Your task to perform on an android device: turn off javascript in the chrome app Image 0: 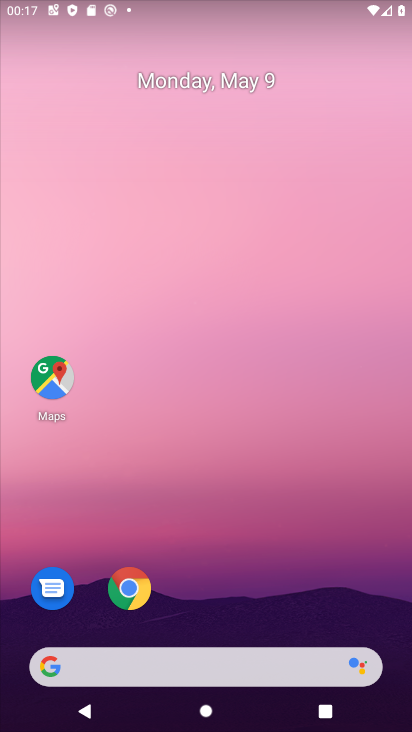
Step 0: click (127, 588)
Your task to perform on an android device: turn off javascript in the chrome app Image 1: 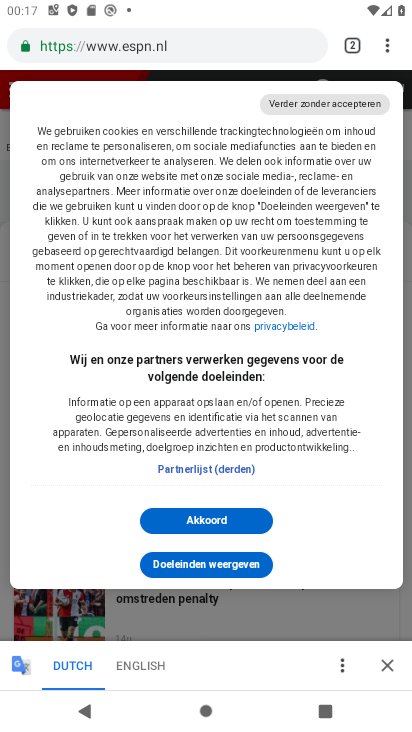
Step 1: click (386, 41)
Your task to perform on an android device: turn off javascript in the chrome app Image 2: 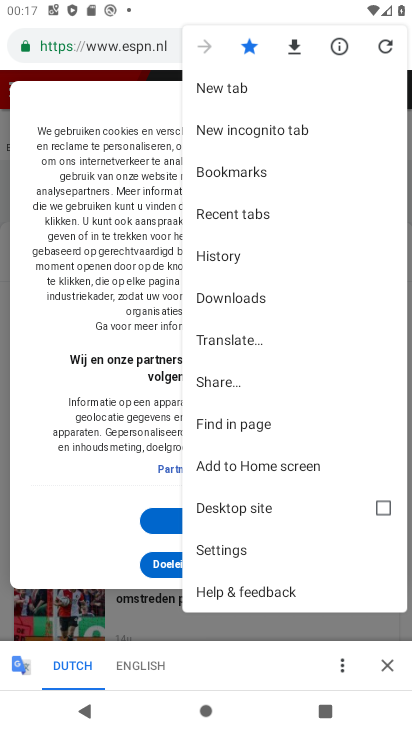
Step 2: click (223, 551)
Your task to perform on an android device: turn off javascript in the chrome app Image 3: 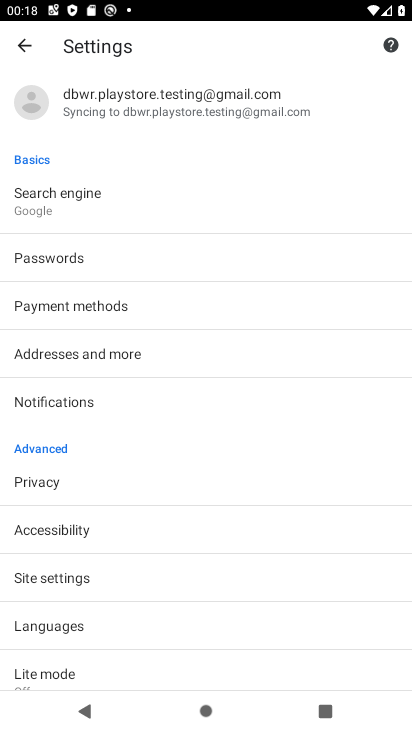
Step 3: click (48, 576)
Your task to perform on an android device: turn off javascript in the chrome app Image 4: 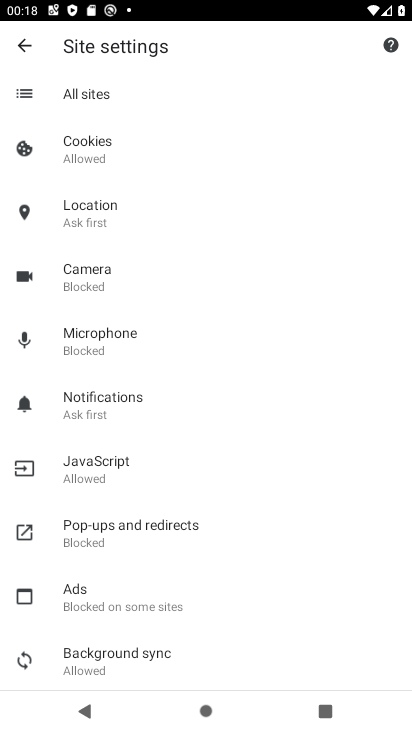
Step 4: click (92, 456)
Your task to perform on an android device: turn off javascript in the chrome app Image 5: 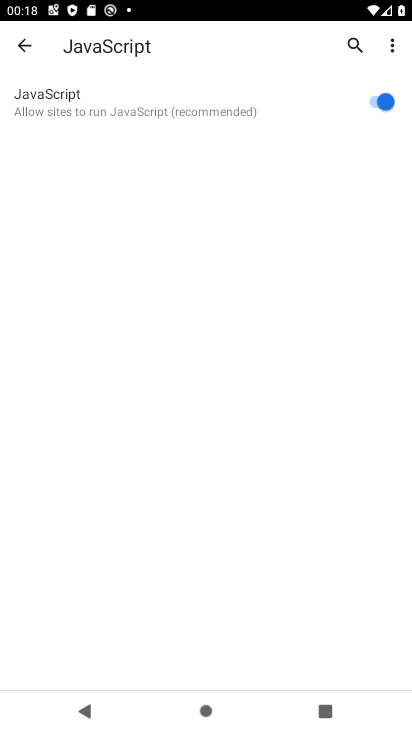
Step 5: click (388, 90)
Your task to perform on an android device: turn off javascript in the chrome app Image 6: 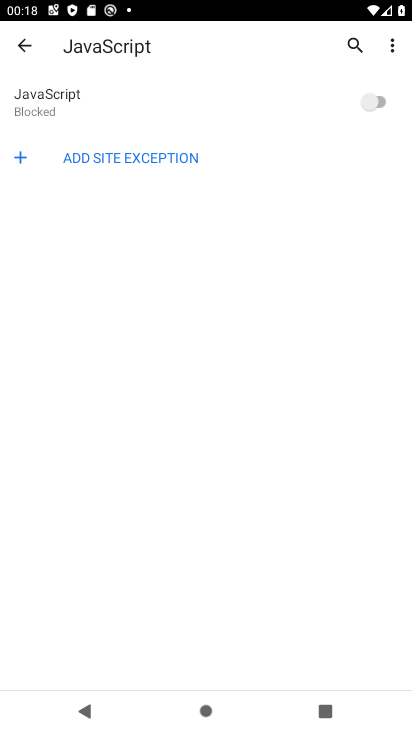
Step 6: task complete